Your task to perform on an android device: Go to display settings Image 0: 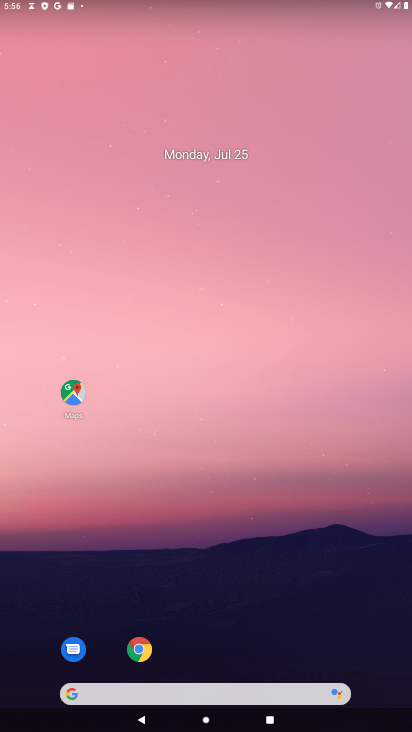
Step 0: drag from (260, 687) to (276, 10)
Your task to perform on an android device: Go to display settings Image 1: 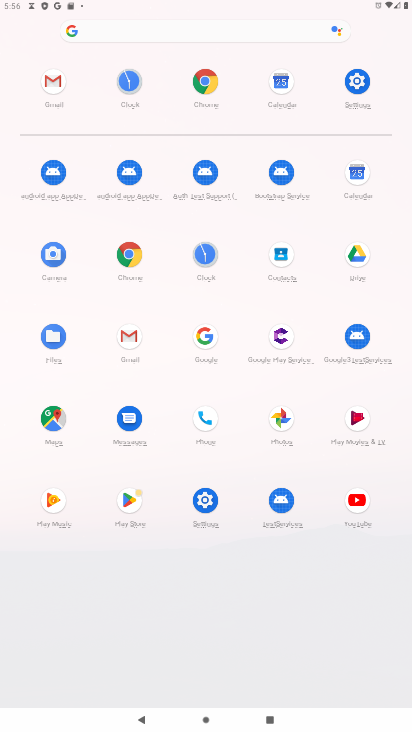
Step 1: click (363, 78)
Your task to perform on an android device: Go to display settings Image 2: 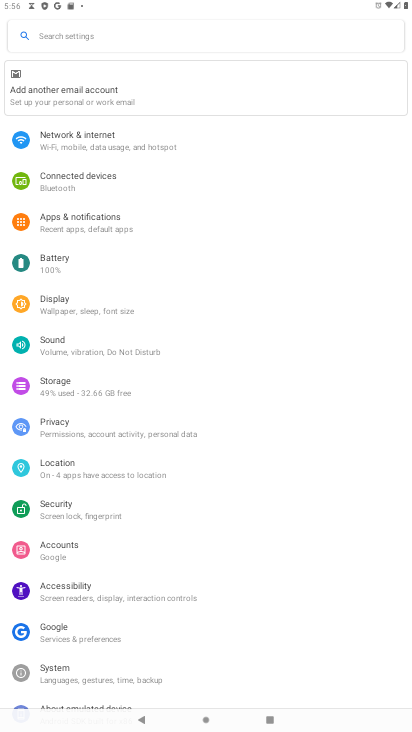
Step 2: click (72, 301)
Your task to perform on an android device: Go to display settings Image 3: 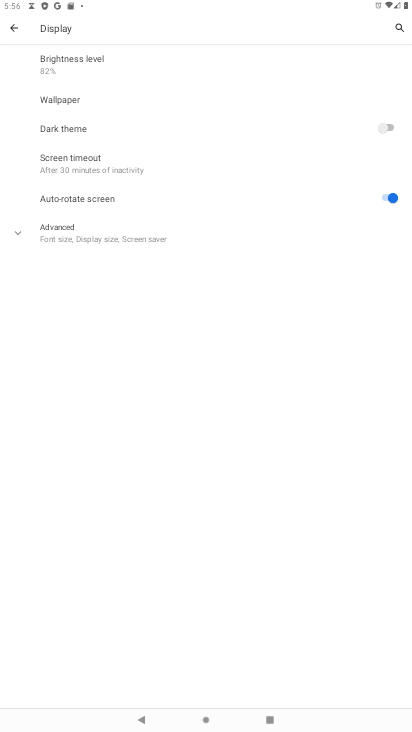
Step 3: task complete